Your task to perform on an android device: find which apps use the phone's location Image 0: 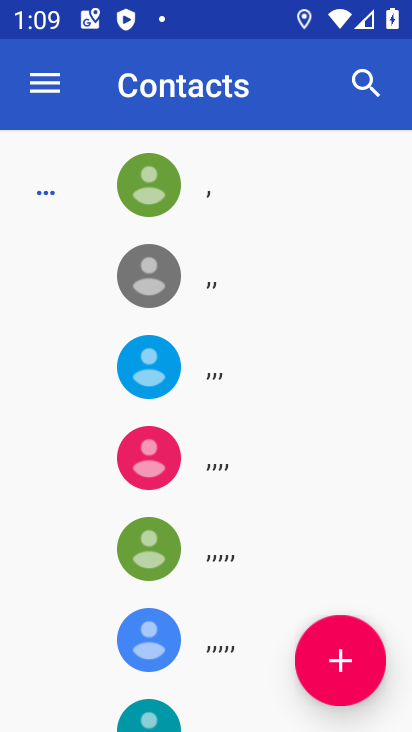
Step 0: press home button
Your task to perform on an android device: find which apps use the phone's location Image 1: 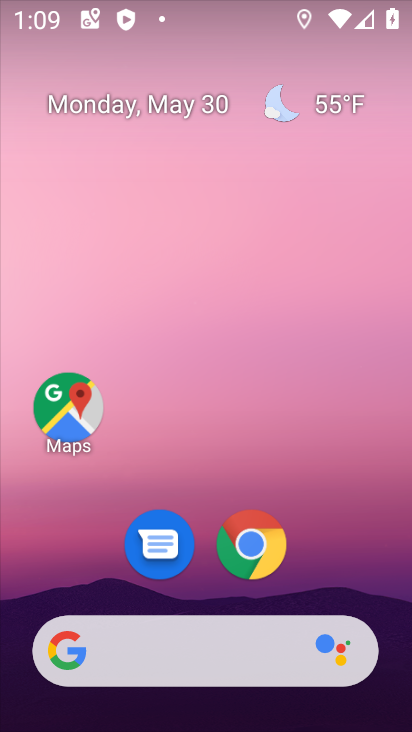
Step 1: drag from (344, 567) to (317, 82)
Your task to perform on an android device: find which apps use the phone's location Image 2: 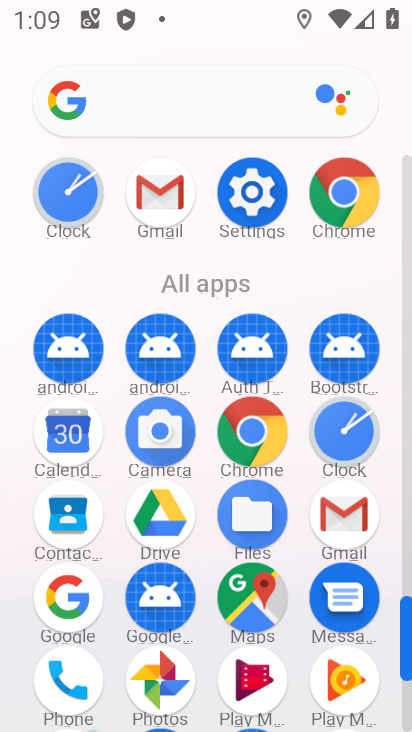
Step 2: click (221, 251)
Your task to perform on an android device: find which apps use the phone's location Image 3: 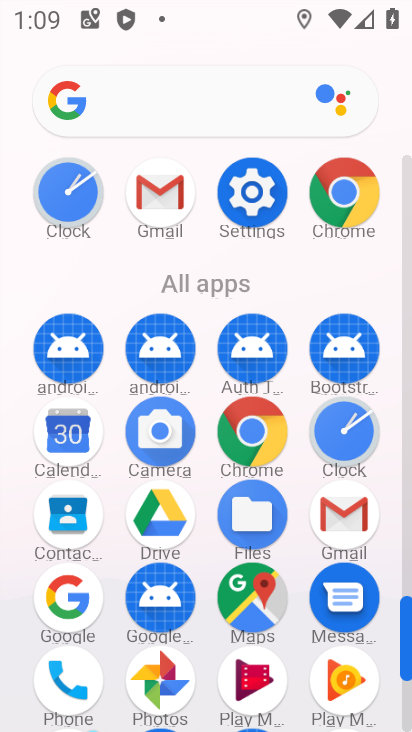
Step 3: click (224, 225)
Your task to perform on an android device: find which apps use the phone's location Image 4: 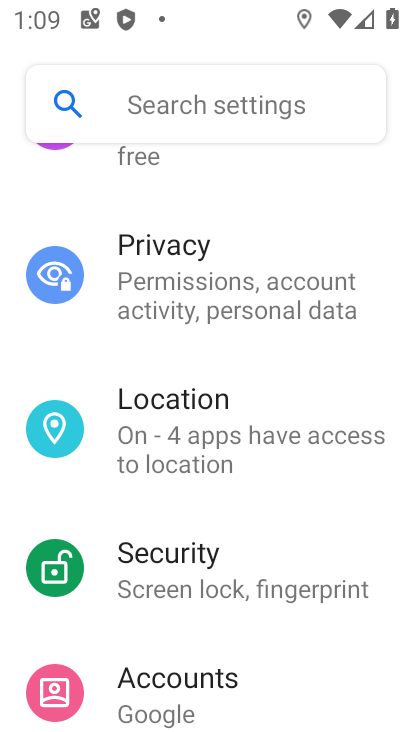
Step 4: drag from (214, 215) to (207, 361)
Your task to perform on an android device: find which apps use the phone's location Image 5: 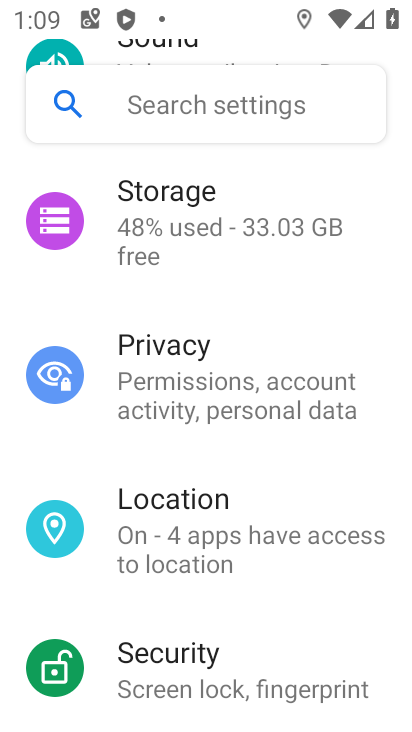
Step 5: click (180, 507)
Your task to perform on an android device: find which apps use the phone's location Image 6: 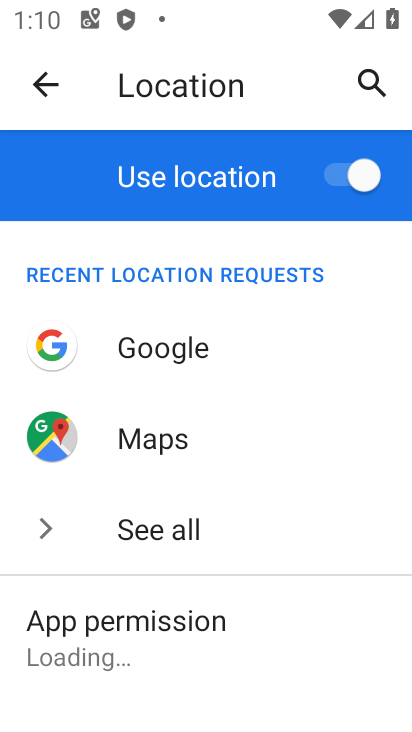
Step 6: drag from (285, 568) to (265, 180)
Your task to perform on an android device: find which apps use the phone's location Image 7: 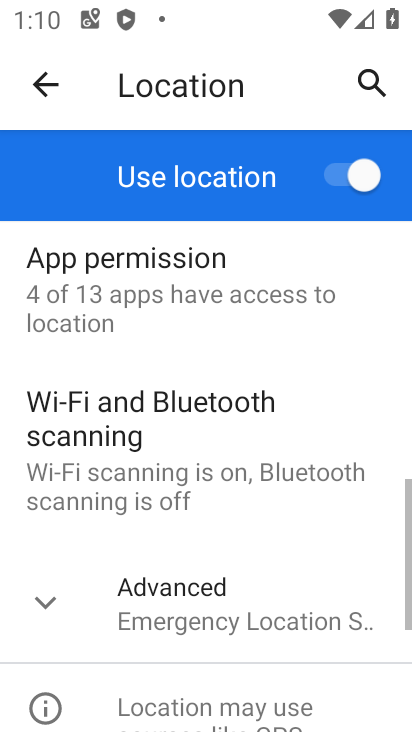
Step 7: click (162, 288)
Your task to perform on an android device: find which apps use the phone's location Image 8: 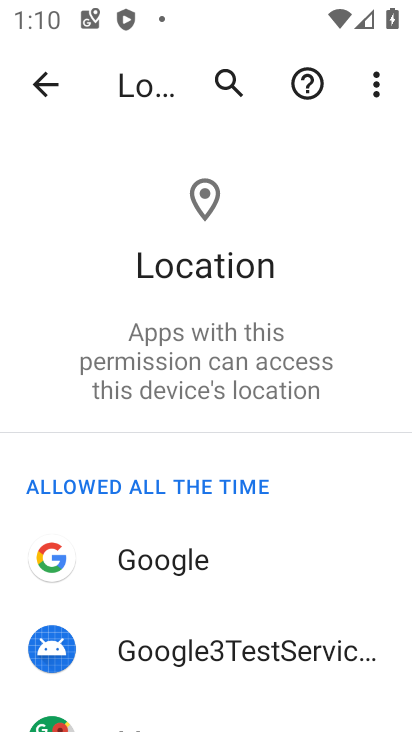
Step 8: task complete